Your task to perform on an android device: Turn on the flashlight Image 0: 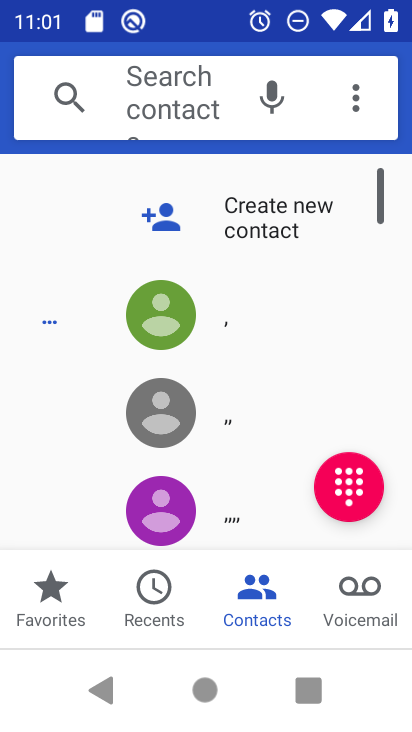
Step 0: press home button
Your task to perform on an android device: Turn on the flashlight Image 1: 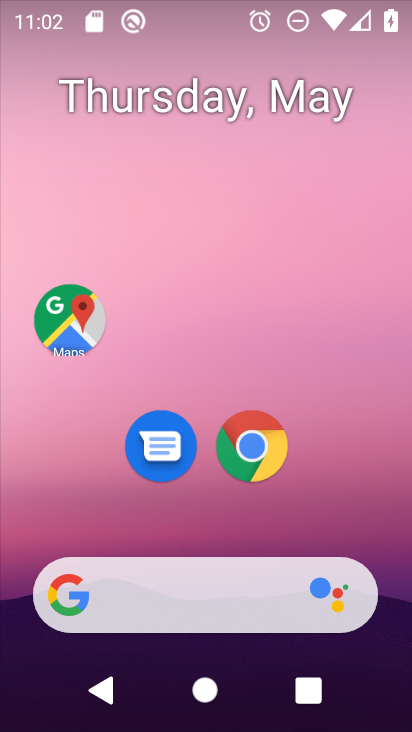
Step 1: drag from (280, 634) to (326, 272)
Your task to perform on an android device: Turn on the flashlight Image 2: 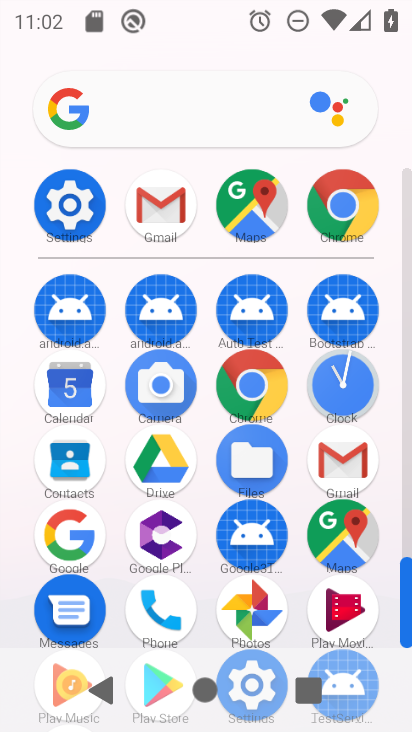
Step 2: click (95, 208)
Your task to perform on an android device: Turn on the flashlight Image 3: 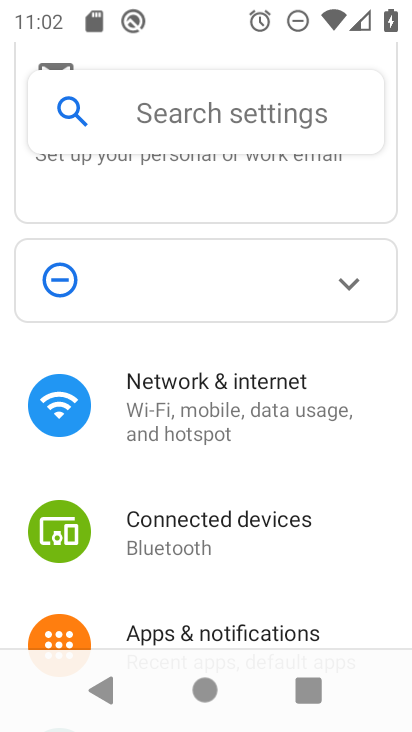
Step 3: click (153, 129)
Your task to perform on an android device: Turn on the flashlight Image 4: 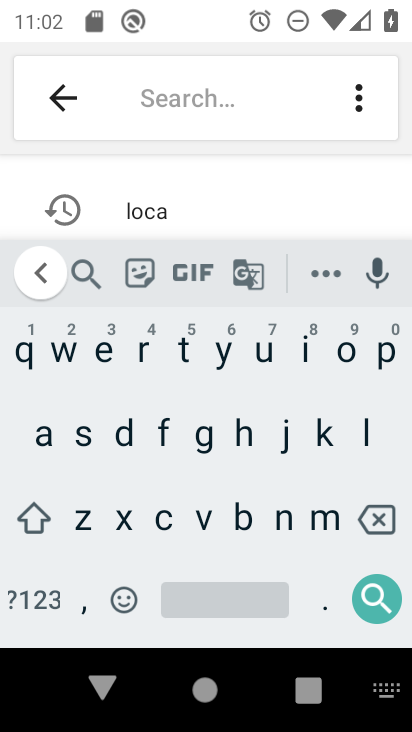
Step 4: click (160, 424)
Your task to perform on an android device: Turn on the flashlight Image 5: 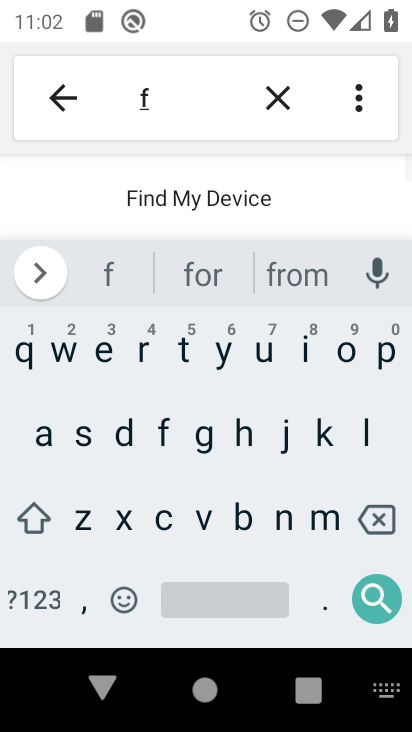
Step 5: click (362, 429)
Your task to perform on an android device: Turn on the flashlight Image 6: 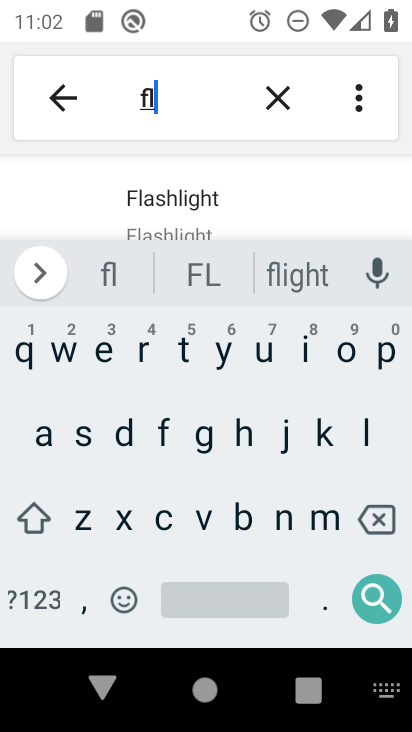
Step 6: click (161, 209)
Your task to perform on an android device: Turn on the flashlight Image 7: 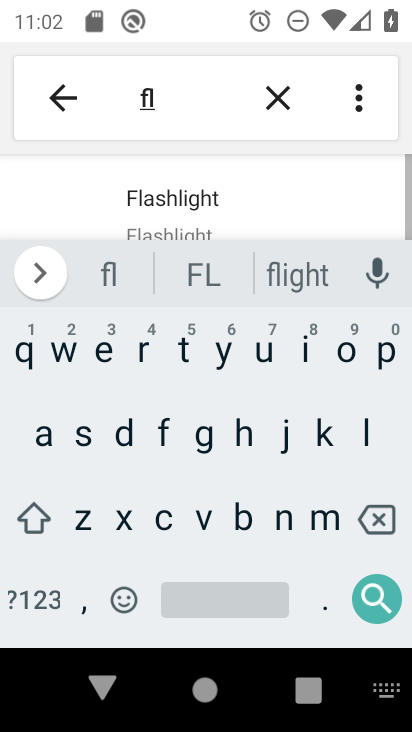
Step 7: click (161, 208)
Your task to perform on an android device: Turn on the flashlight Image 8: 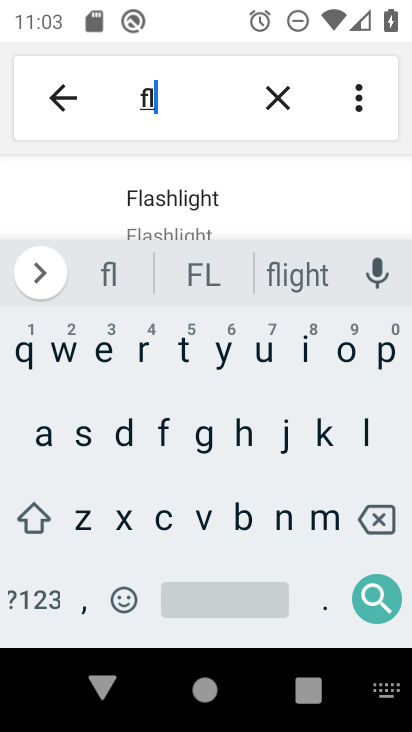
Step 8: task complete